Your task to perform on an android device: read, delete, or share a saved page in the chrome app Image 0: 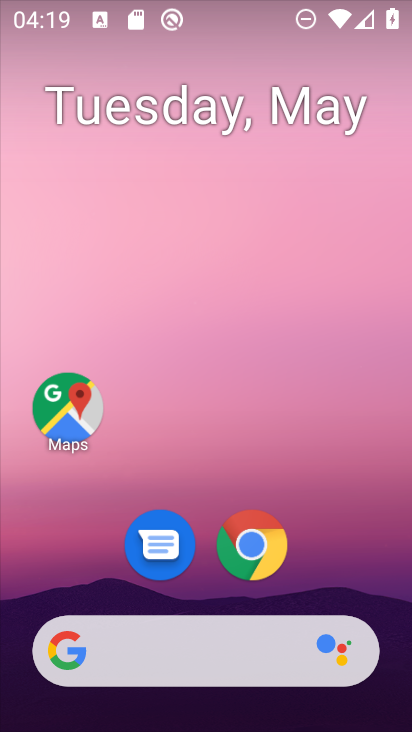
Step 0: click (248, 542)
Your task to perform on an android device: read, delete, or share a saved page in the chrome app Image 1: 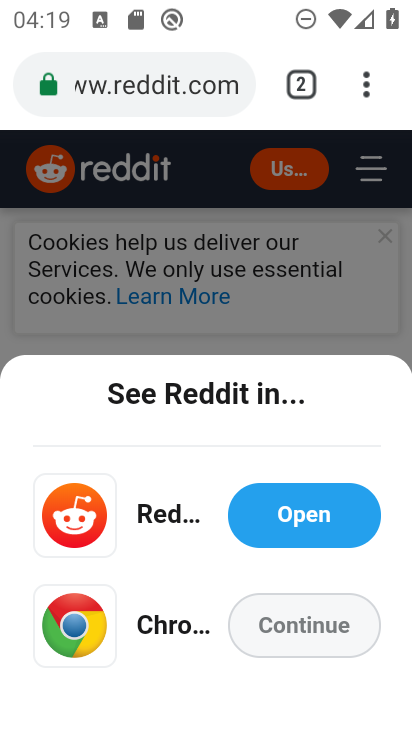
Step 1: click (365, 95)
Your task to perform on an android device: read, delete, or share a saved page in the chrome app Image 2: 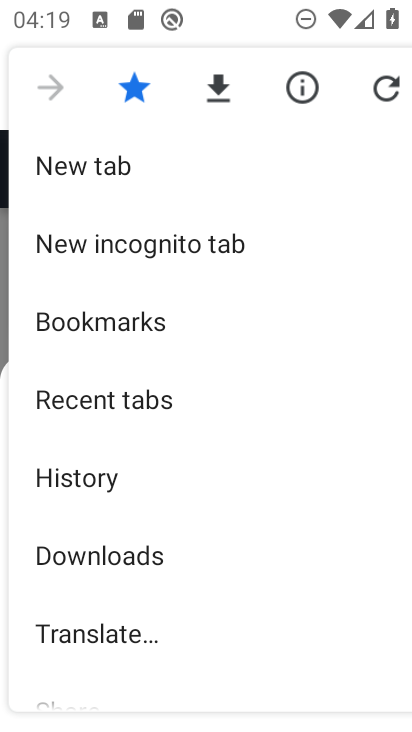
Step 2: click (74, 557)
Your task to perform on an android device: read, delete, or share a saved page in the chrome app Image 3: 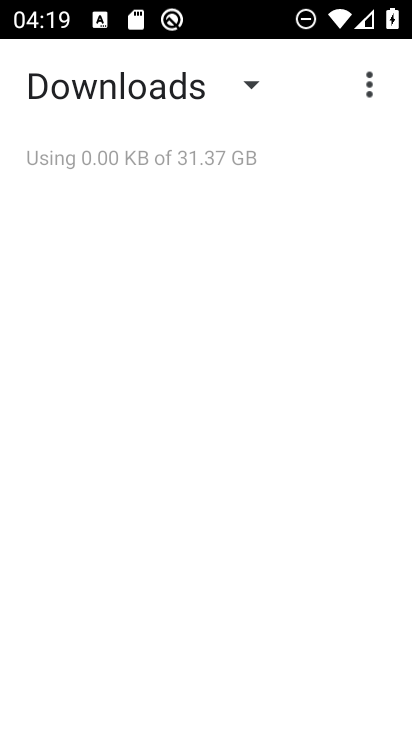
Step 3: click (237, 87)
Your task to perform on an android device: read, delete, or share a saved page in the chrome app Image 4: 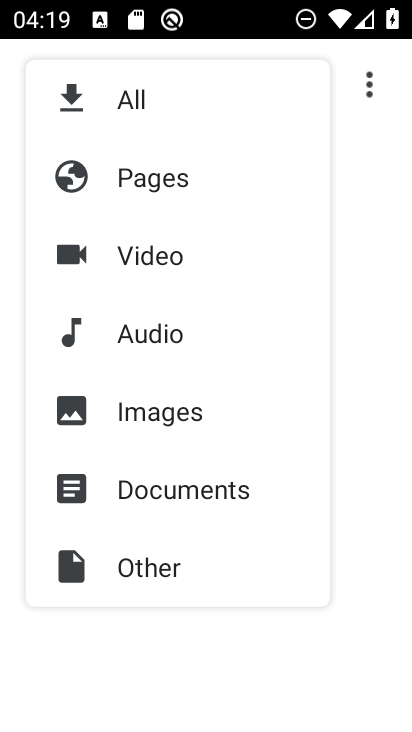
Step 4: click (144, 174)
Your task to perform on an android device: read, delete, or share a saved page in the chrome app Image 5: 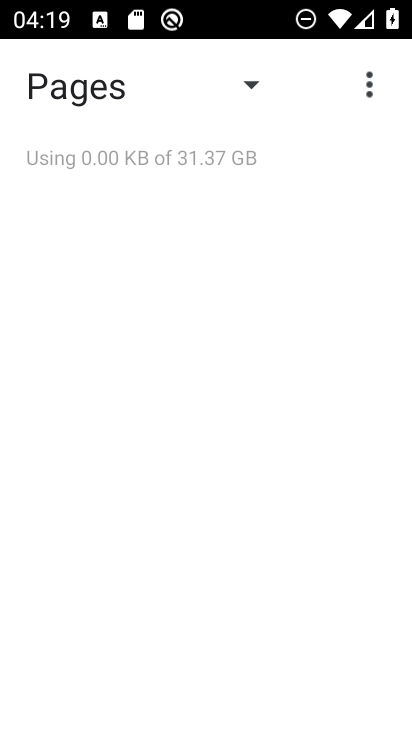
Step 5: task complete